Your task to perform on an android device: Search for coffee table on Crate & Barrel Image 0: 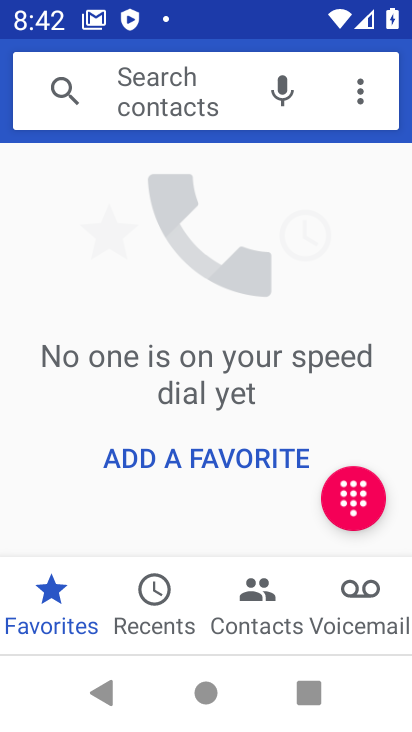
Step 0: press home button
Your task to perform on an android device: Search for coffee table on Crate & Barrel Image 1: 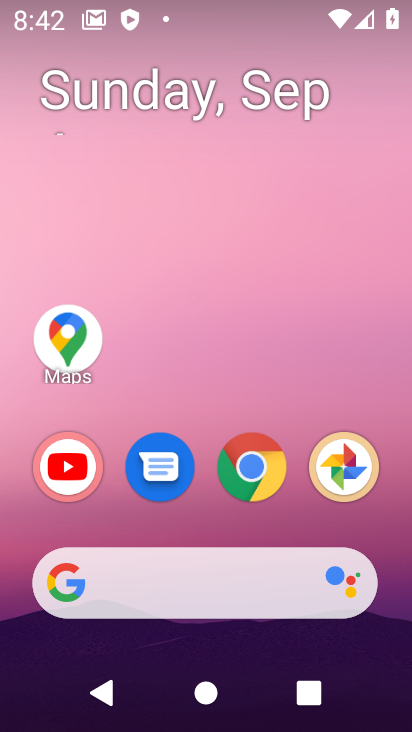
Step 1: click (268, 472)
Your task to perform on an android device: Search for coffee table on Crate & Barrel Image 2: 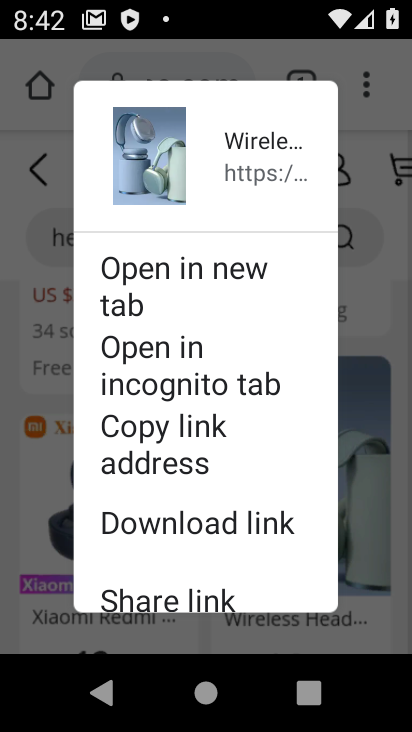
Step 2: click (4, 373)
Your task to perform on an android device: Search for coffee table on Crate & Barrel Image 3: 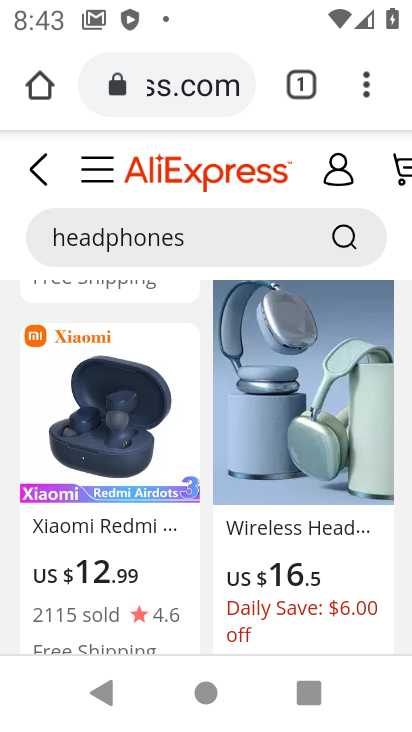
Step 3: click (239, 65)
Your task to perform on an android device: Search for coffee table on Crate & Barrel Image 4: 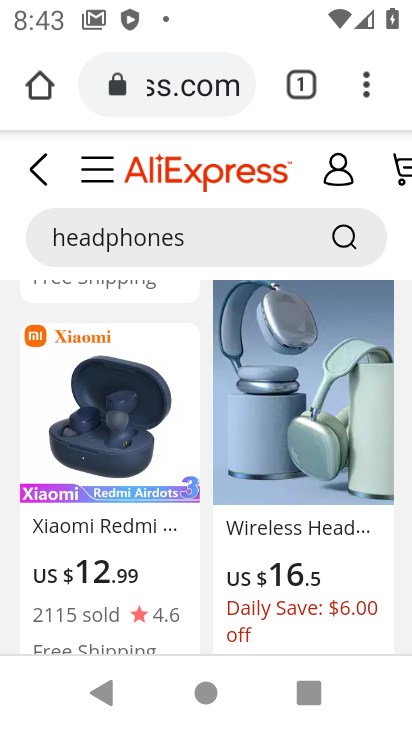
Step 4: click (189, 88)
Your task to perform on an android device: Search for coffee table on Crate & Barrel Image 5: 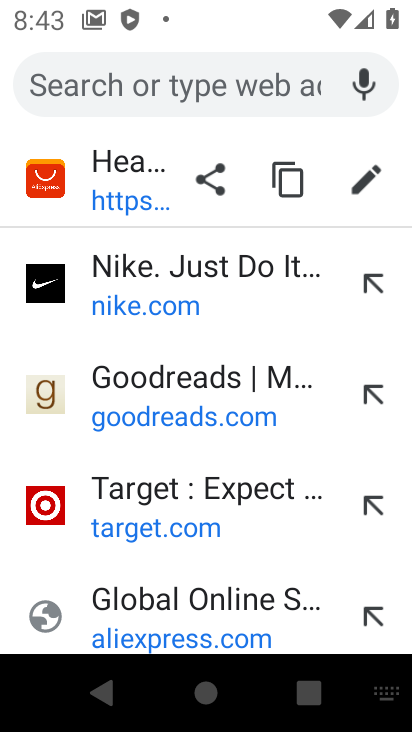
Step 5: type "crate & barrel"
Your task to perform on an android device: Search for coffee table on Crate & Barrel Image 6: 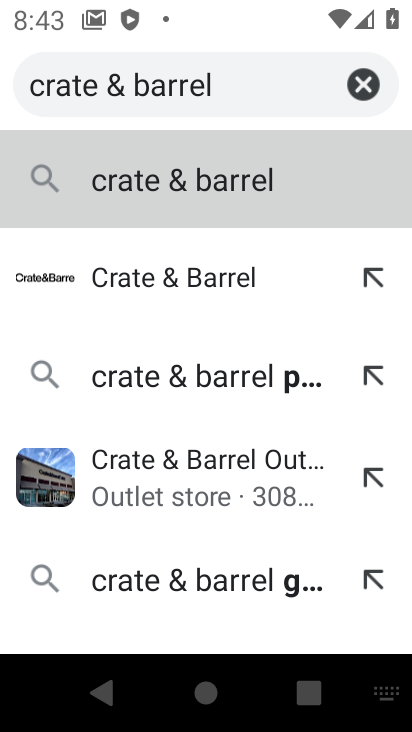
Step 6: click (206, 459)
Your task to perform on an android device: Search for coffee table on Crate & Barrel Image 7: 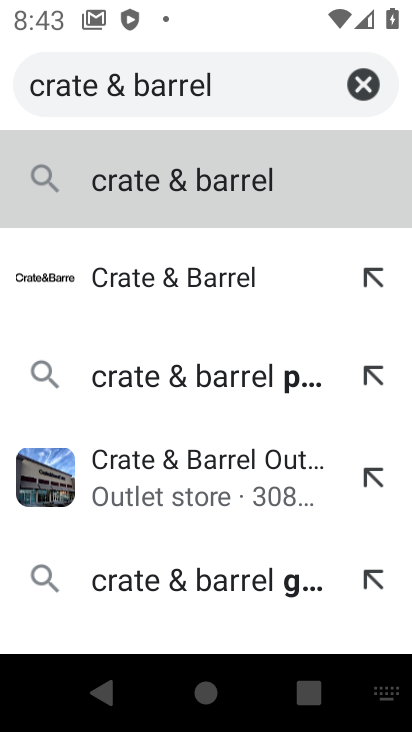
Step 7: click (195, 486)
Your task to perform on an android device: Search for coffee table on Crate & Barrel Image 8: 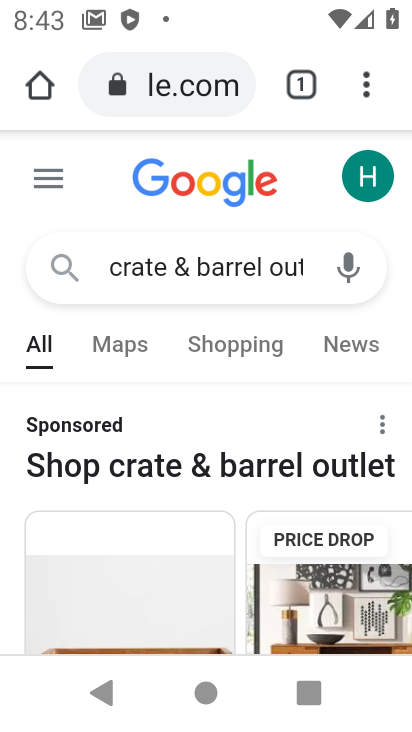
Step 8: drag from (384, 479) to (389, 157)
Your task to perform on an android device: Search for coffee table on Crate & Barrel Image 9: 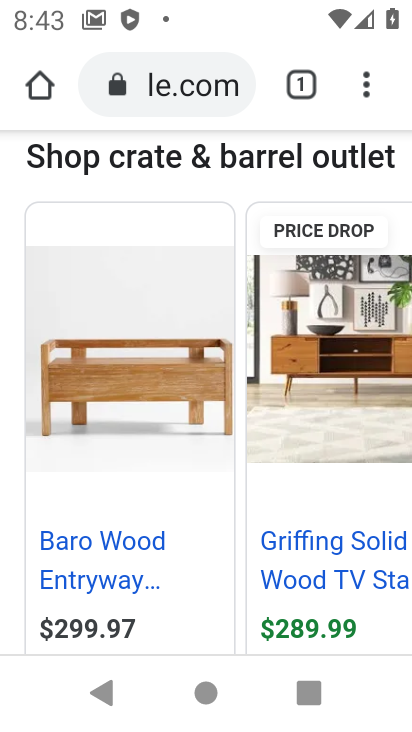
Step 9: drag from (369, 572) to (369, 207)
Your task to perform on an android device: Search for coffee table on Crate & Barrel Image 10: 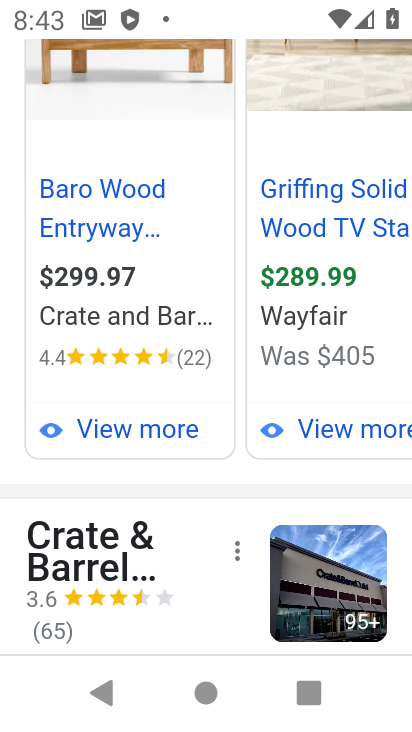
Step 10: drag from (360, 546) to (369, 188)
Your task to perform on an android device: Search for coffee table on Crate & Barrel Image 11: 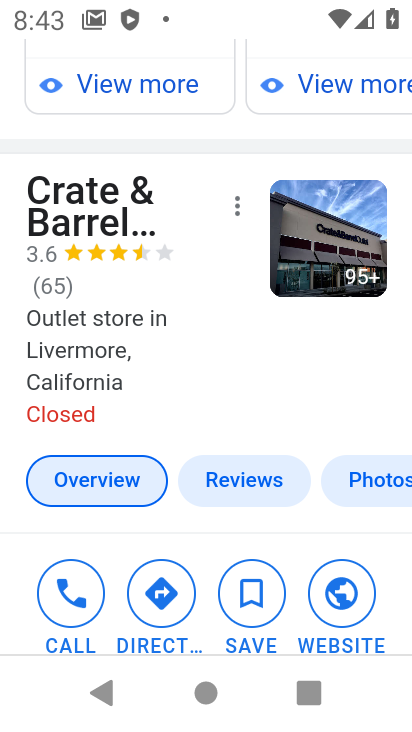
Step 11: drag from (317, 406) to (336, 103)
Your task to perform on an android device: Search for coffee table on Crate & Barrel Image 12: 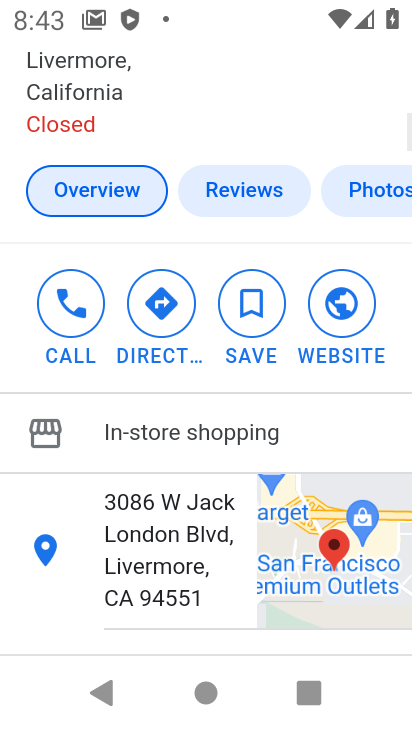
Step 12: click (345, 184)
Your task to perform on an android device: Search for coffee table on Crate & Barrel Image 13: 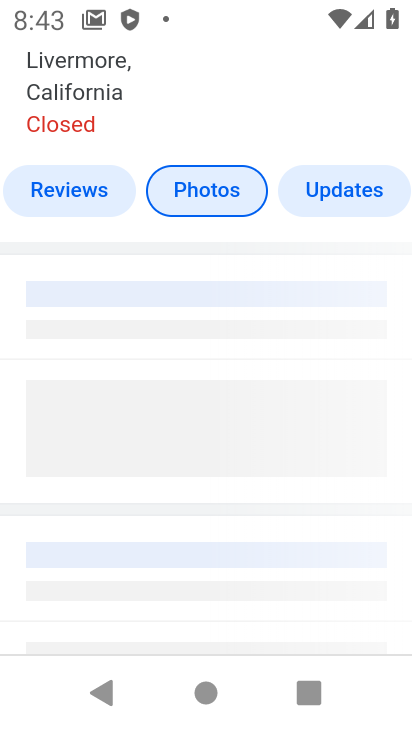
Step 13: drag from (383, 604) to (384, 268)
Your task to perform on an android device: Search for coffee table on Crate & Barrel Image 14: 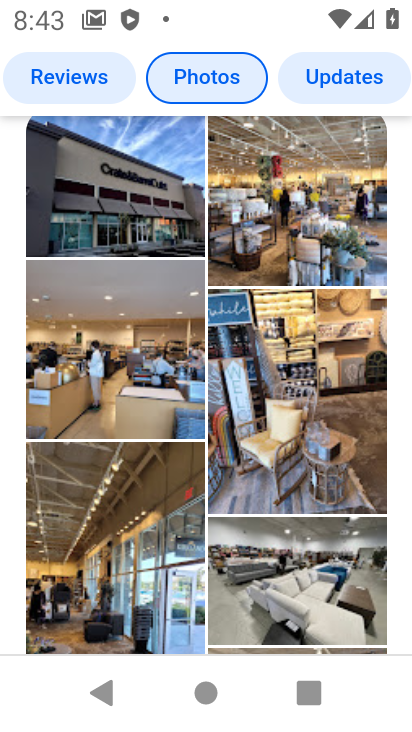
Step 14: click (312, 305)
Your task to perform on an android device: Search for coffee table on Crate & Barrel Image 15: 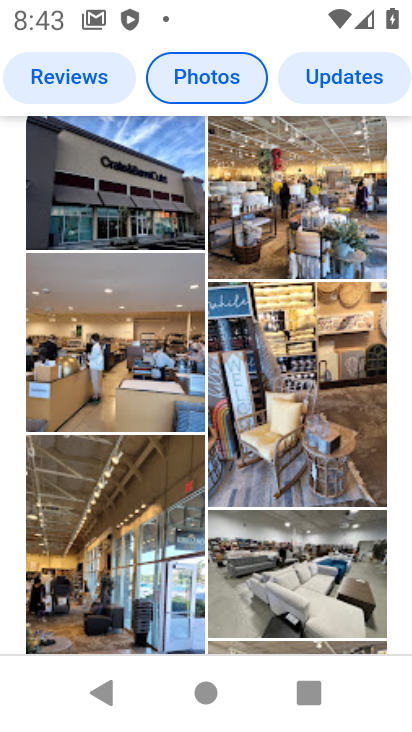
Step 15: press back button
Your task to perform on an android device: Search for coffee table on Crate & Barrel Image 16: 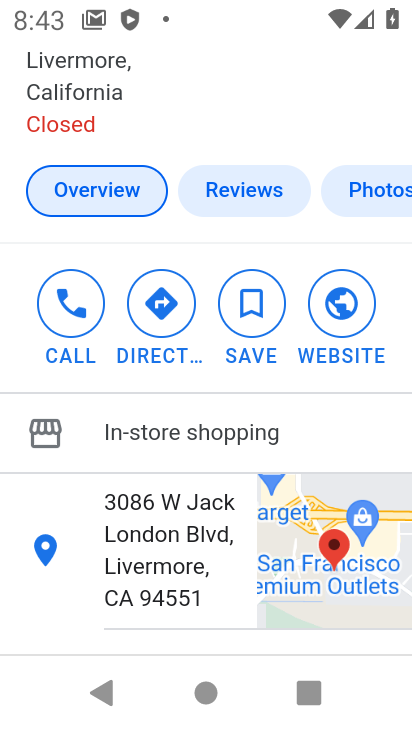
Step 16: drag from (382, 610) to (378, 180)
Your task to perform on an android device: Search for coffee table on Crate & Barrel Image 17: 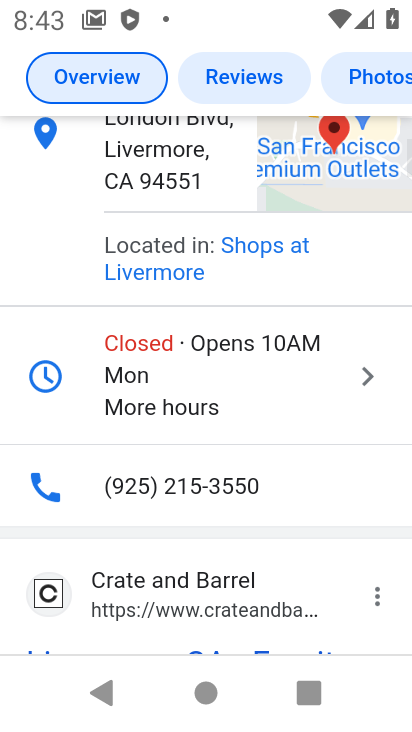
Step 17: drag from (398, 530) to (383, 241)
Your task to perform on an android device: Search for coffee table on Crate & Barrel Image 18: 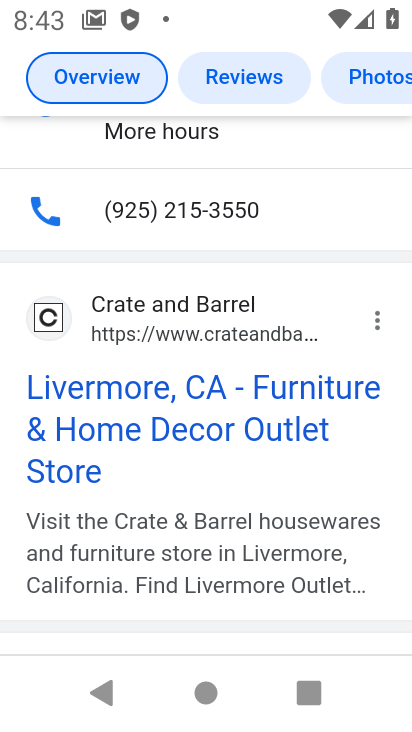
Step 18: click (172, 330)
Your task to perform on an android device: Search for coffee table on Crate & Barrel Image 19: 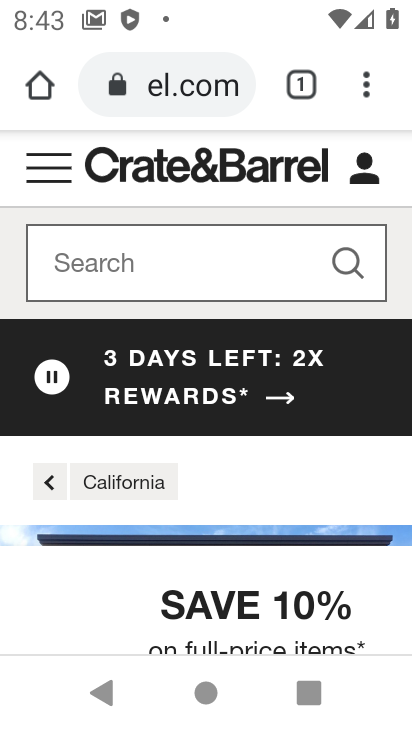
Step 19: click (106, 254)
Your task to perform on an android device: Search for coffee table on Crate & Barrel Image 20: 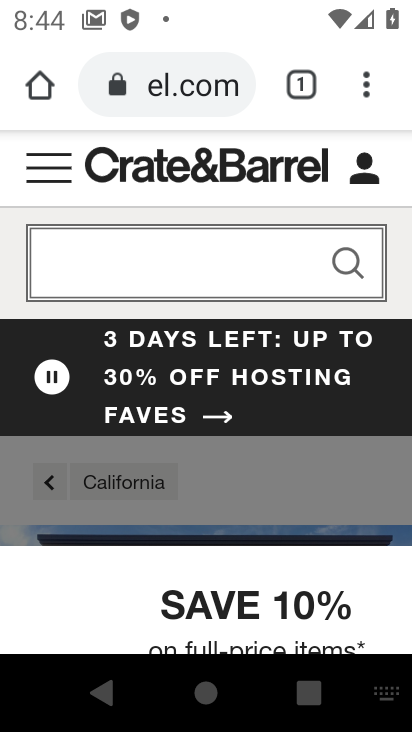
Step 20: type "coffee table"
Your task to perform on an android device: Search for coffee table on Crate & Barrel Image 21: 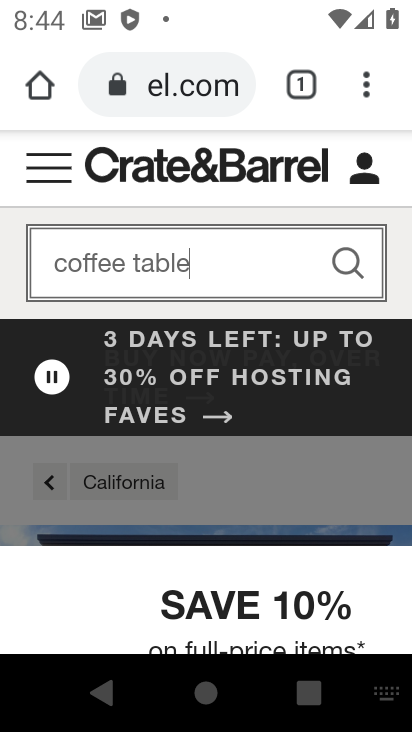
Step 21: type ""
Your task to perform on an android device: Search for coffee table on Crate & Barrel Image 22: 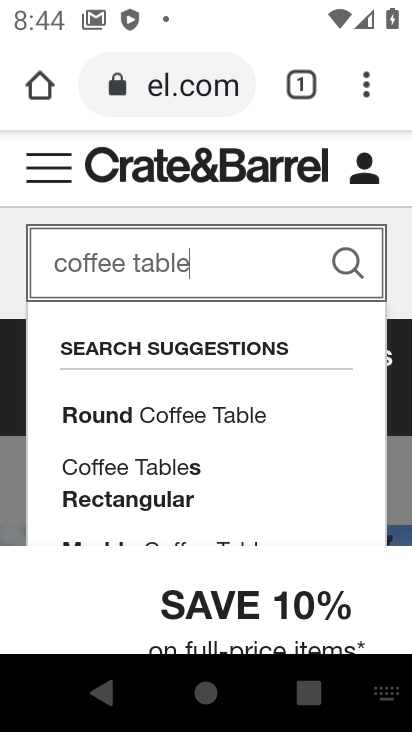
Step 22: click (172, 415)
Your task to perform on an android device: Search for coffee table on Crate & Barrel Image 23: 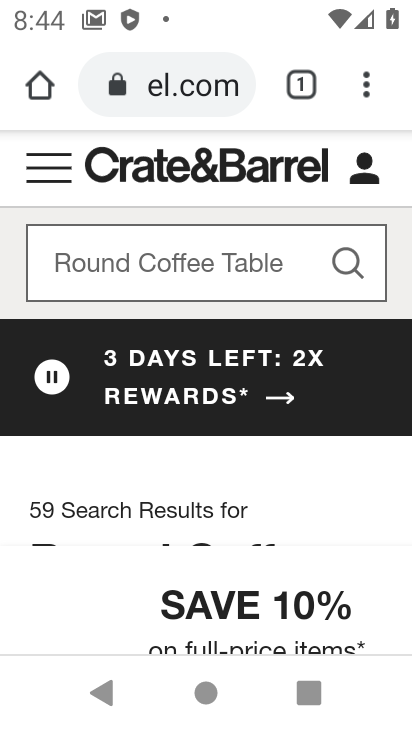
Step 23: task complete